Your task to perform on an android device: refresh tabs in the chrome app Image 0: 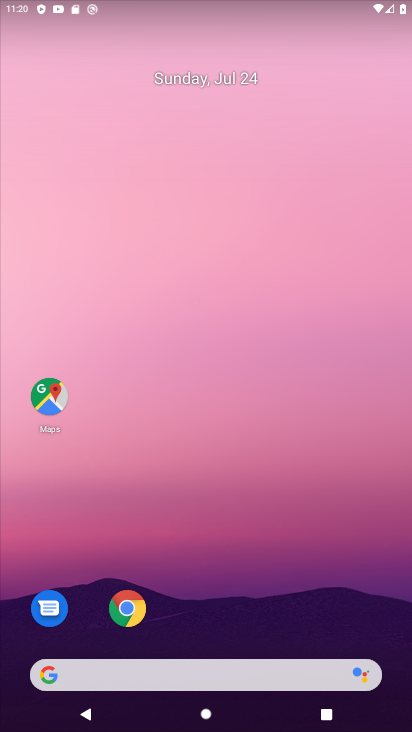
Step 0: click (131, 614)
Your task to perform on an android device: refresh tabs in the chrome app Image 1: 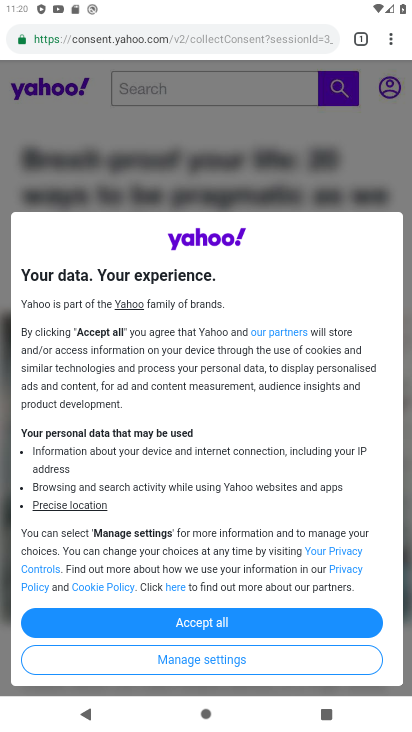
Step 1: click (393, 37)
Your task to perform on an android device: refresh tabs in the chrome app Image 2: 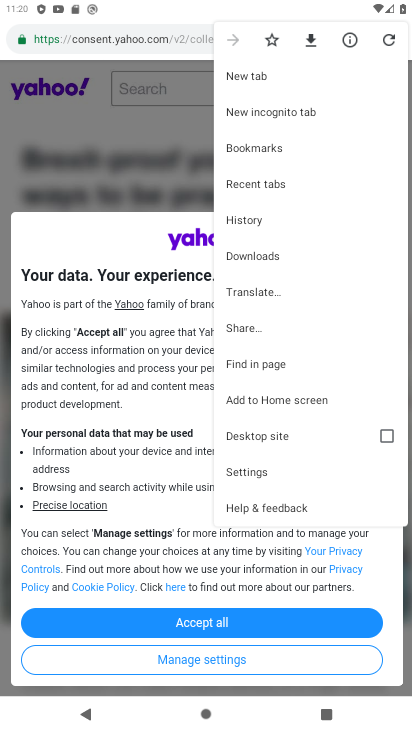
Step 2: click (393, 37)
Your task to perform on an android device: refresh tabs in the chrome app Image 3: 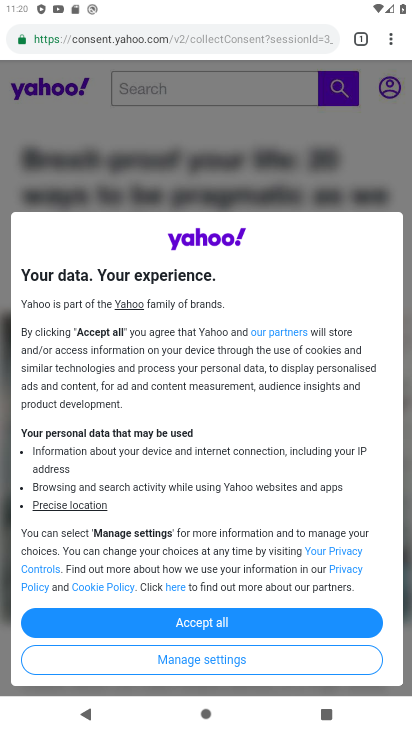
Step 3: task complete